Your task to perform on an android device: Clear the shopping cart on amazon. Add "usb-c to usb-a" to the cart on amazon Image 0: 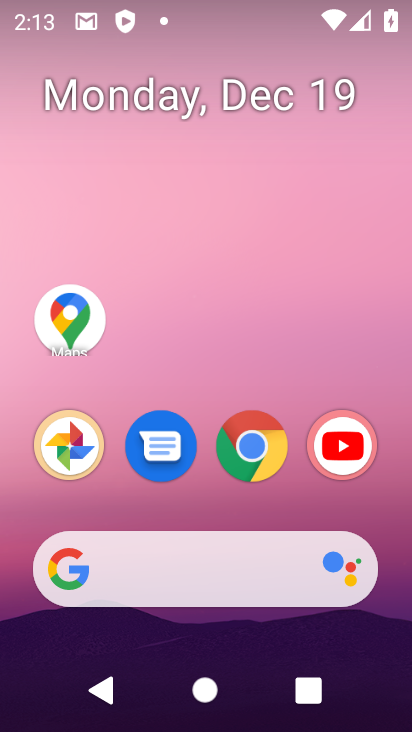
Step 0: click (226, 460)
Your task to perform on an android device: Clear the shopping cart on amazon. Add "usb-c to usb-a" to the cart on amazon Image 1: 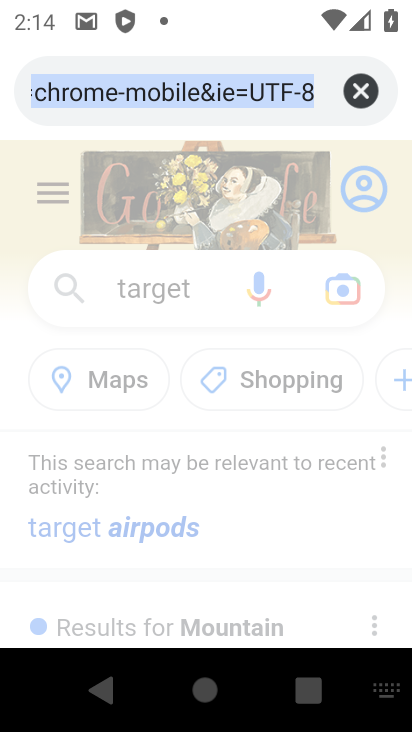
Step 1: task complete